Your task to perform on an android device: Open wifi settings Image 0: 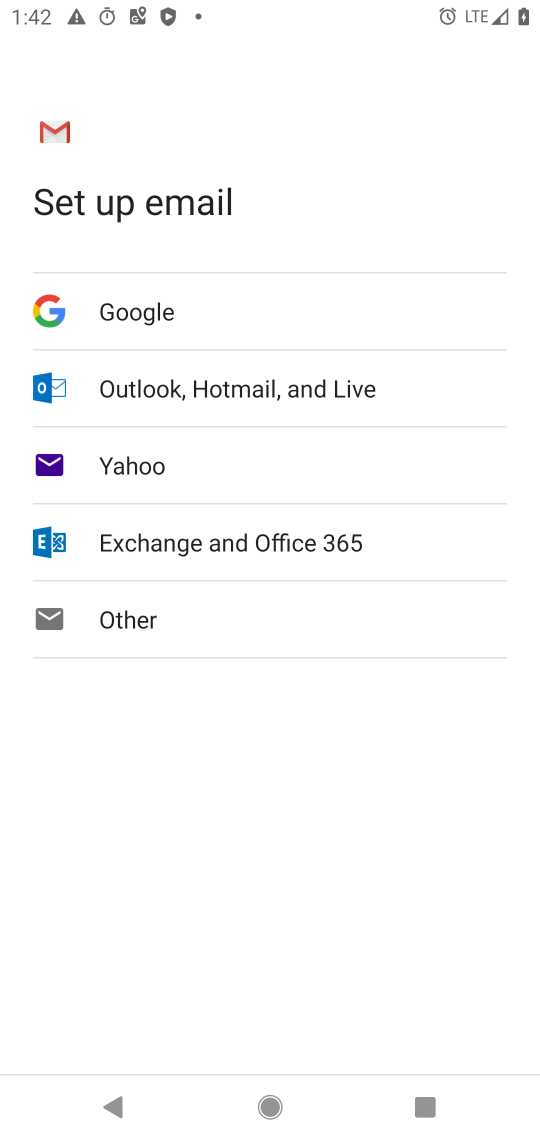
Step 0: press home button
Your task to perform on an android device: Open wifi settings Image 1: 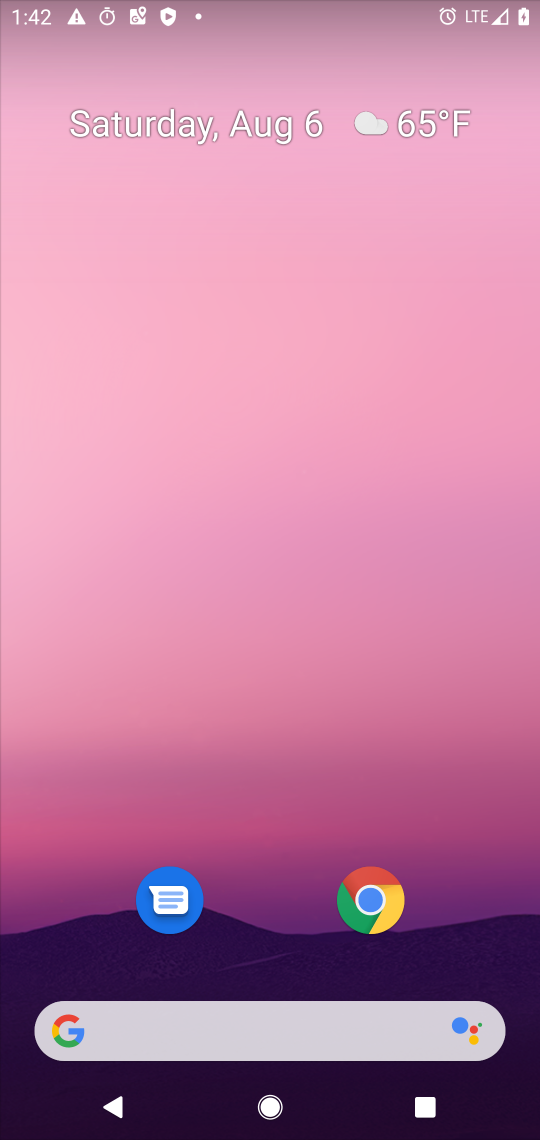
Step 1: drag from (238, 811) to (238, 109)
Your task to perform on an android device: Open wifi settings Image 2: 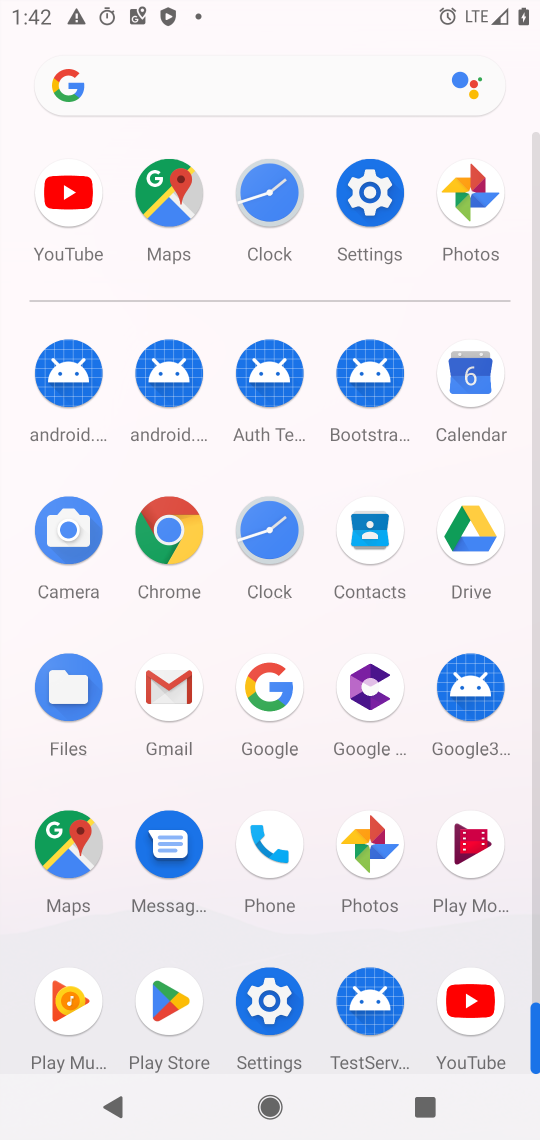
Step 2: click (375, 195)
Your task to perform on an android device: Open wifi settings Image 3: 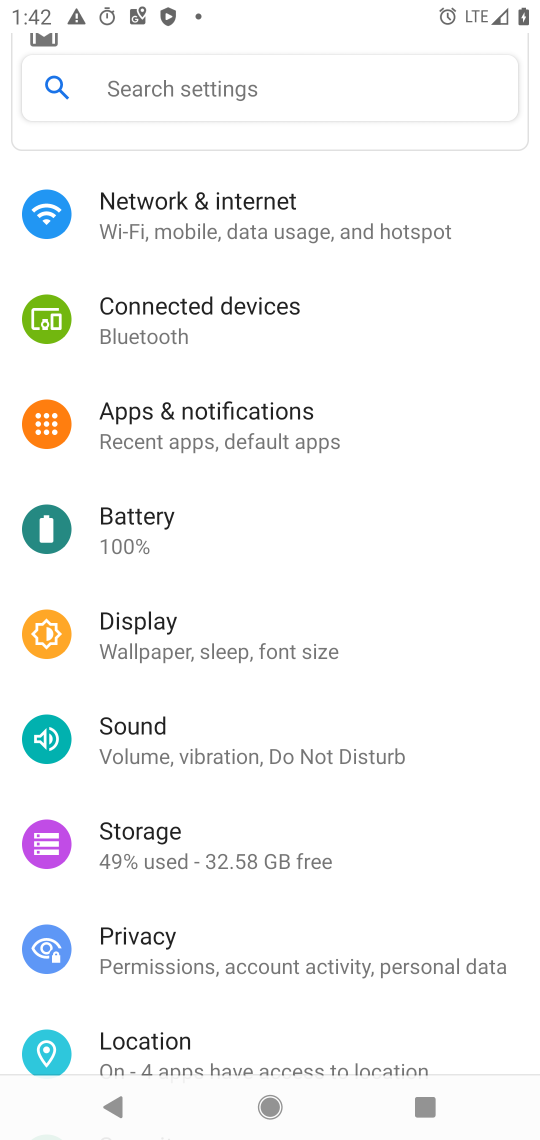
Step 3: click (191, 214)
Your task to perform on an android device: Open wifi settings Image 4: 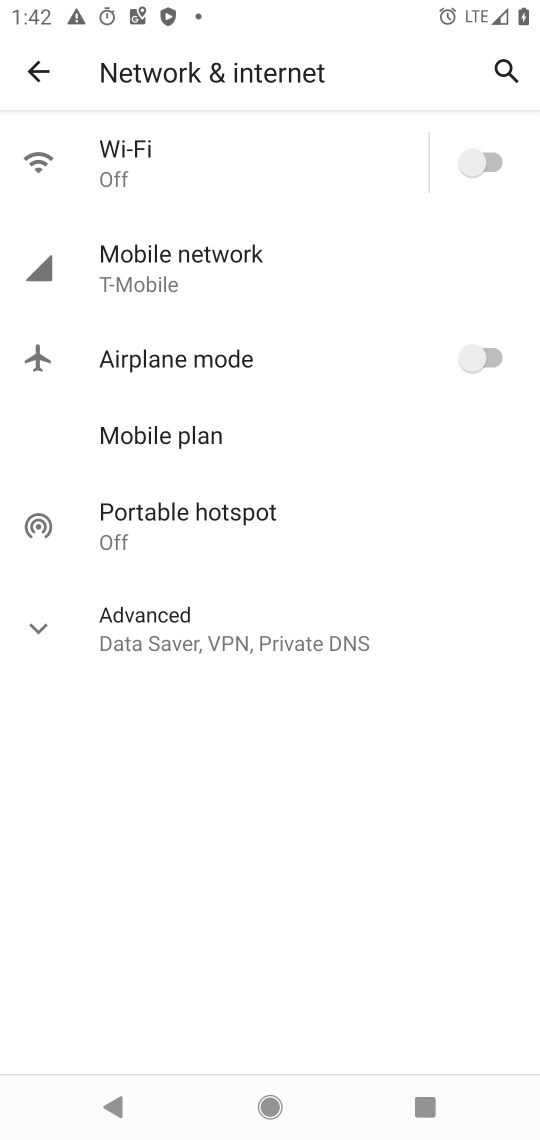
Step 4: click (125, 160)
Your task to perform on an android device: Open wifi settings Image 5: 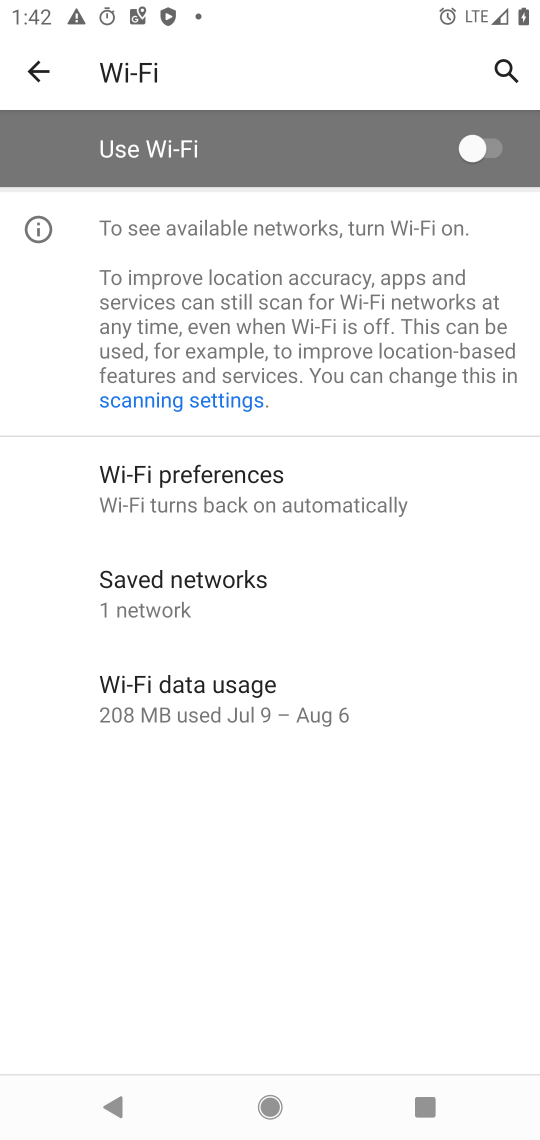
Step 5: task complete